Your task to perform on an android device: Open Reddit.com Image 0: 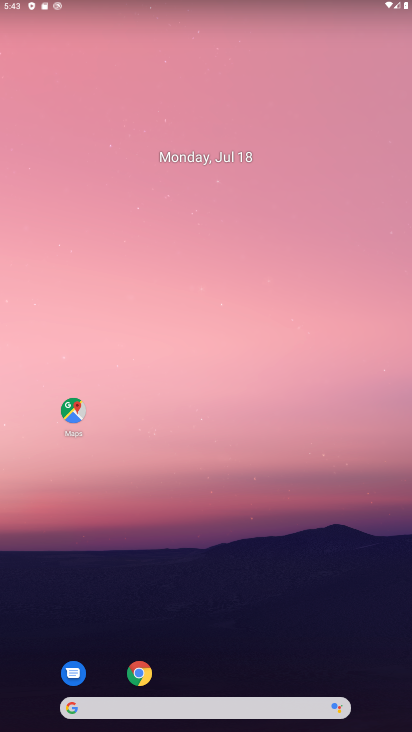
Step 0: click (165, 706)
Your task to perform on an android device: Open Reddit.com Image 1: 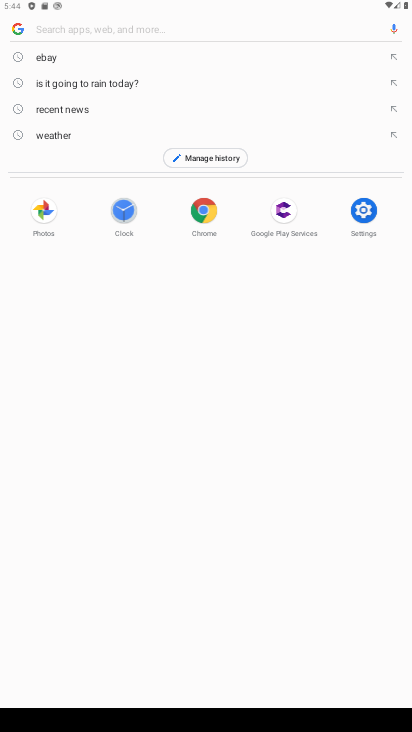
Step 1: type "Reddit.com"
Your task to perform on an android device: Open Reddit.com Image 2: 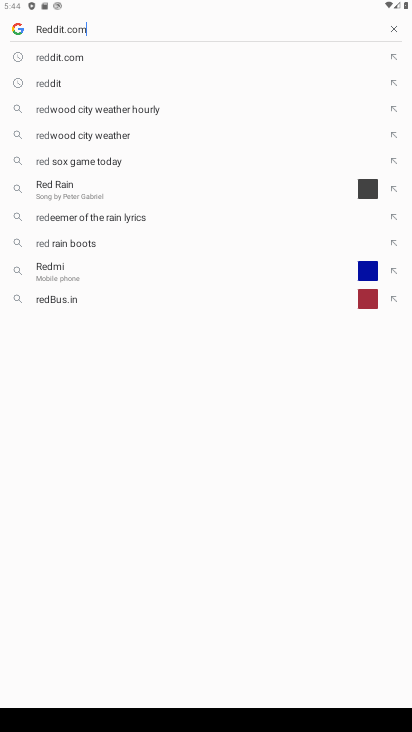
Step 2: type ""
Your task to perform on an android device: Open Reddit.com Image 3: 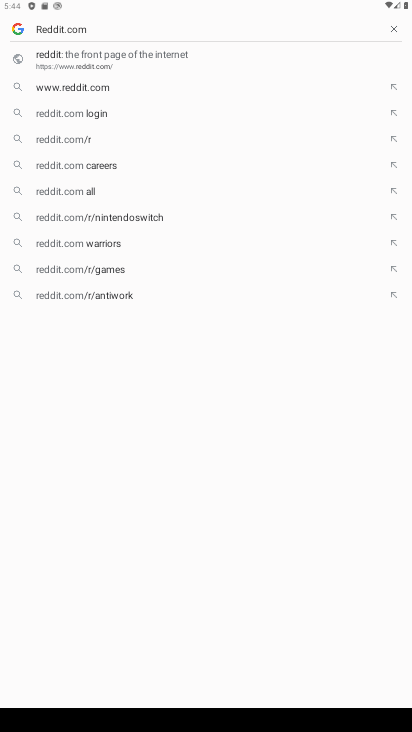
Step 3: press enter
Your task to perform on an android device: Open Reddit.com Image 4: 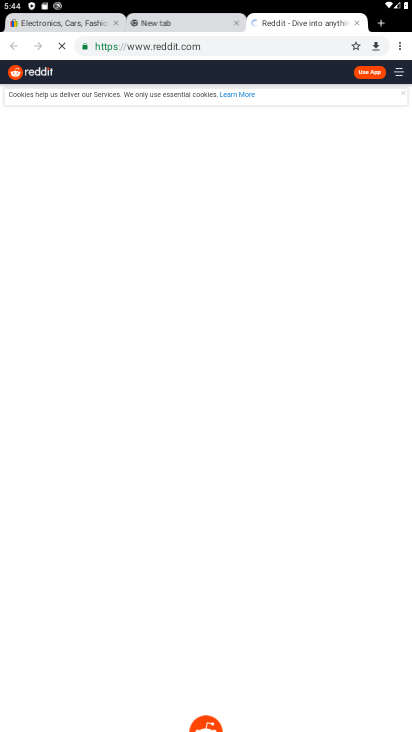
Step 4: task complete